Your task to perform on an android device: Do I have any events tomorrow? Image 0: 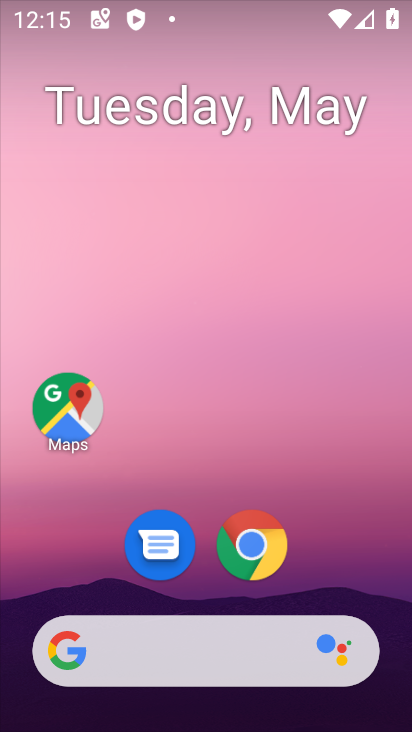
Step 0: click (220, 82)
Your task to perform on an android device: Do I have any events tomorrow? Image 1: 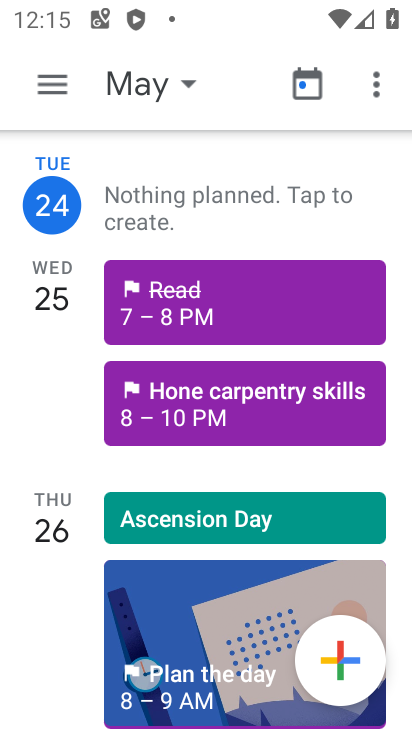
Step 1: click (172, 99)
Your task to perform on an android device: Do I have any events tomorrow? Image 2: 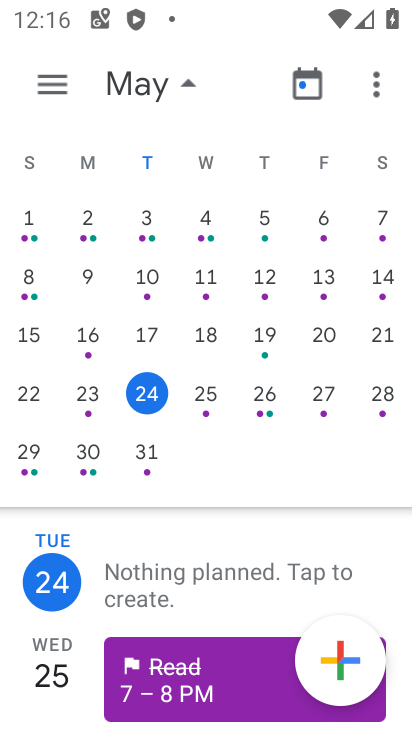
Step 2: click (192, 392)
Your task to perform on an android device: Do I have any events tomorrow? Image 3: 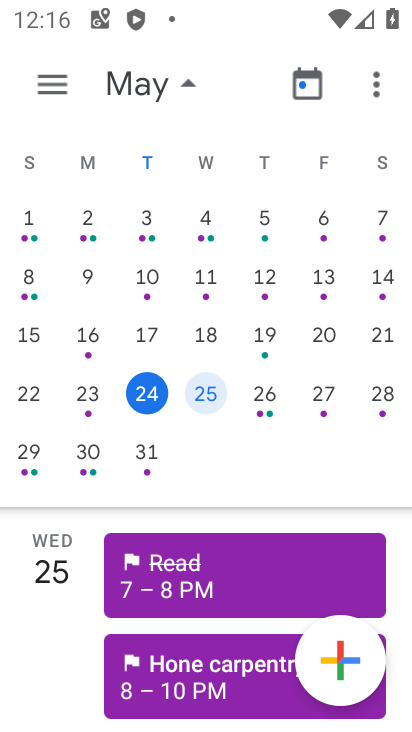
Step 3: task complete